Your task to perform on an android device: open a bookmark in the chrome app Image 0: 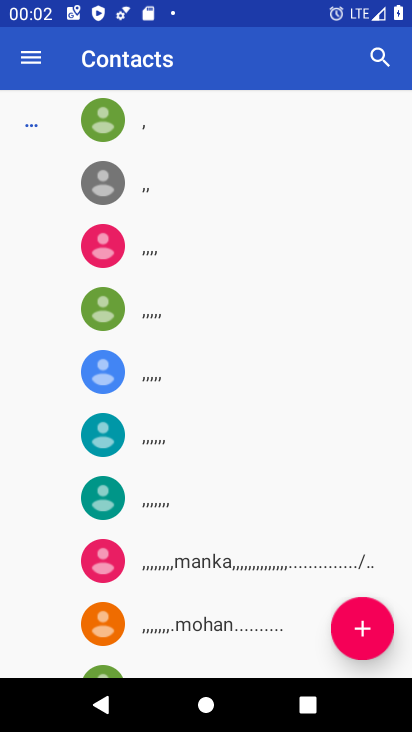
Step 0: press home button
Your task to perform on an android device: open a bookmark in the chrome app Image 1: 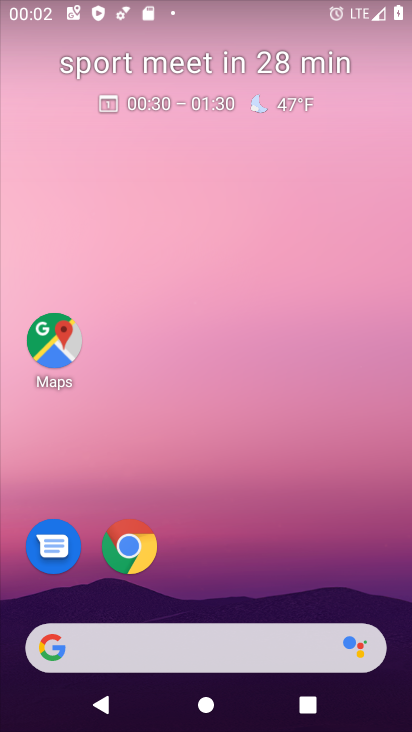
Step 1: click (122, 551)
Your task to perform on an android device: open a bookmark in the chrome app Image 2: 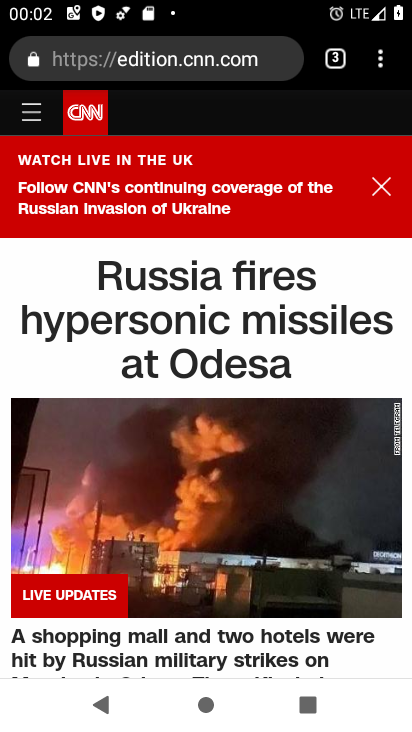
Step 2: task complete